Your task to perform on an android device: Show me the alarms in the clock app Image 0: 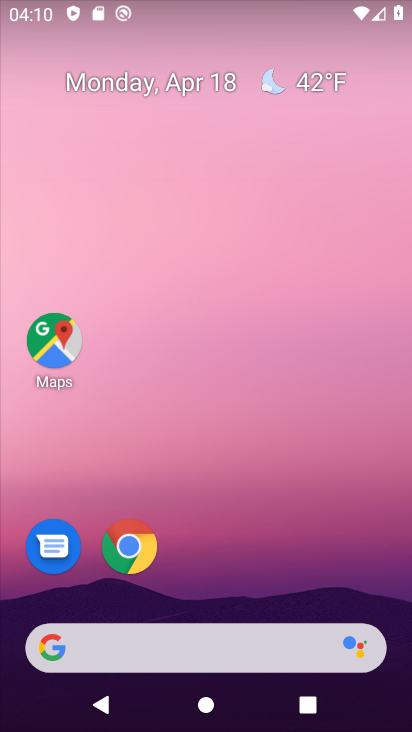
Step 0: drag from (219, 296) to (216, 229)
Your task to perform on an android device: Show me the alarms in the clock app Image 1: 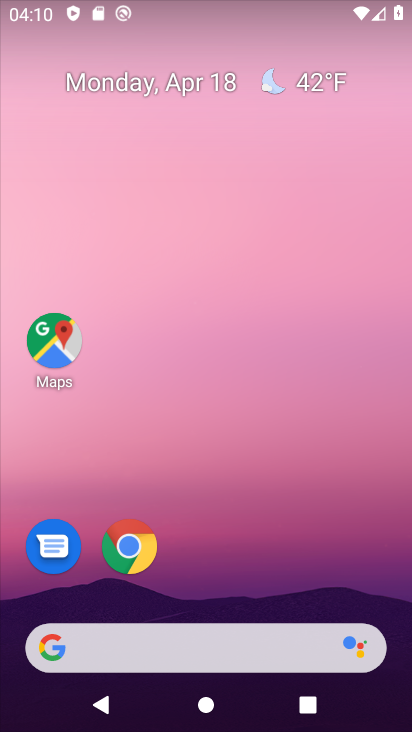
Step 1: drag from (245, 588) to (204, 243)
Your task to perform on an android device: Show me the alarms in the clock app Image 2: 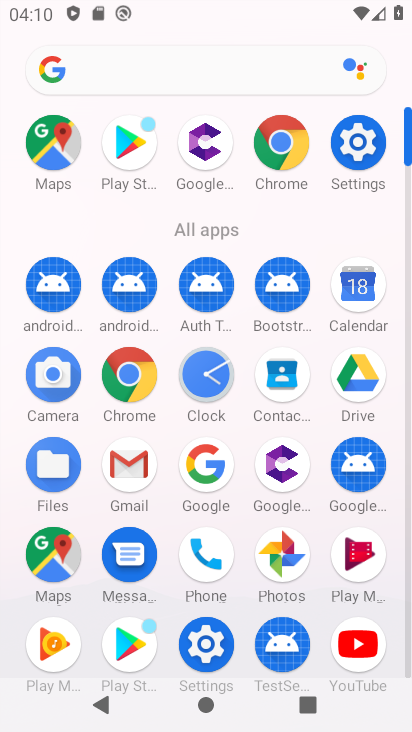
Step 2: click (196, 362)
Your task to perform on an android device: Show me the alarms in the clock app Image 3: 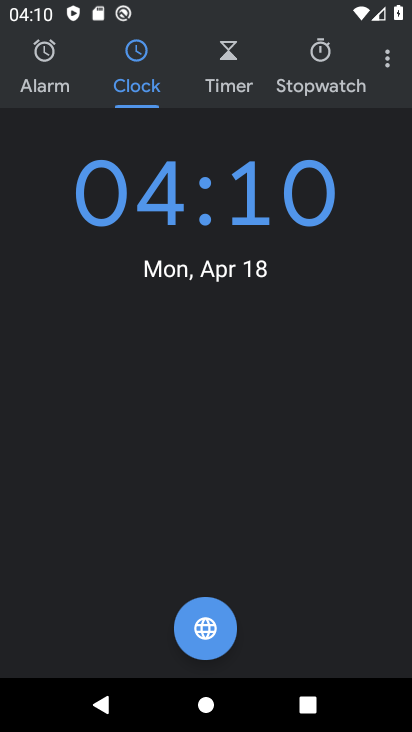
Step 3: click (392, 50)
Your task to perform on an android device: Show me the alarms in the clock app Image 4: 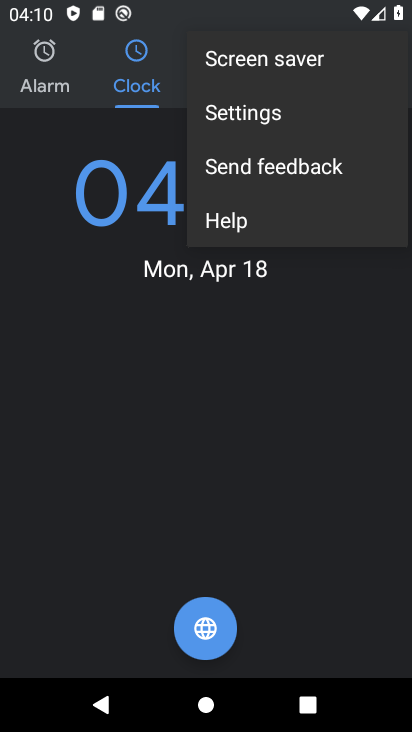
Step 4: click (32, 72)
Your task to perform on an android device: Show me the alarms in the clock app Image 5: 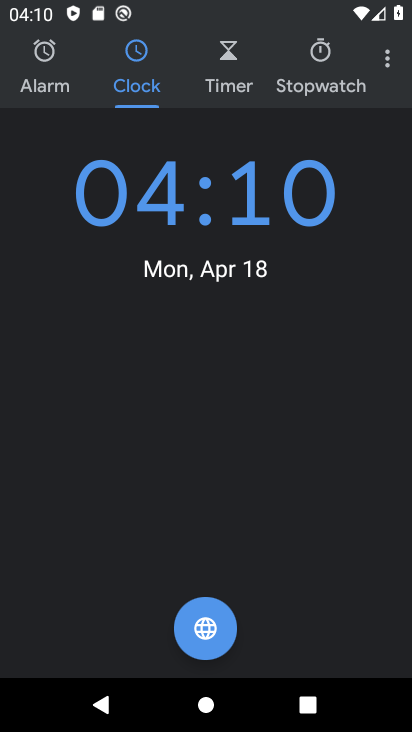
Step 5: click (39, 75)
Your task to perform on an android device: Show me the alarms in the clock app Image 6: 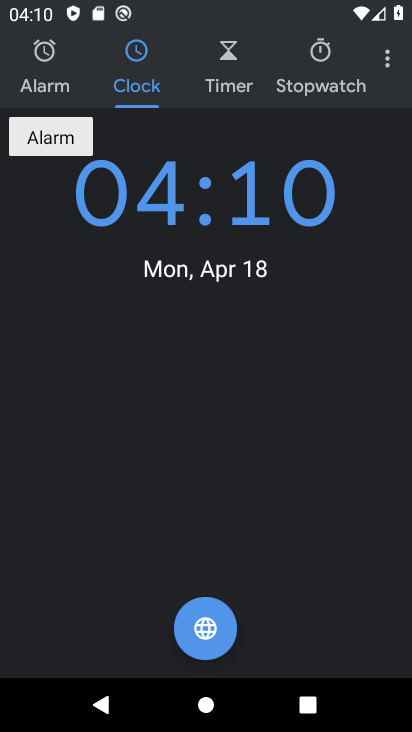
Step 6: click (58, 33)
Your task to perform on an android device: Show me the alarms in the clock app Image 7: 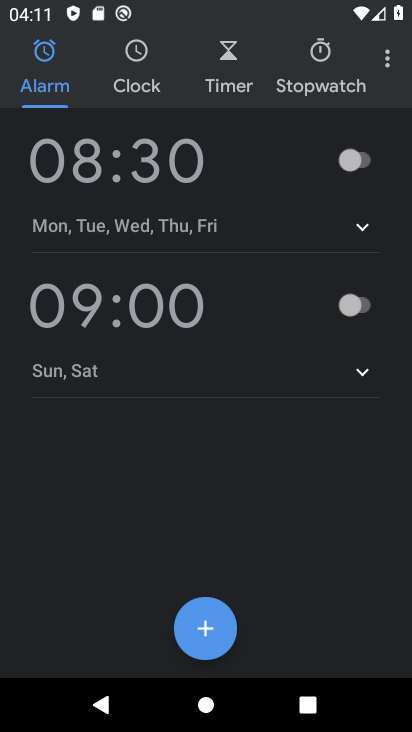
Step 7: task complete